Your task to perform on an android device: allow cookies in the chrome app Image 0: 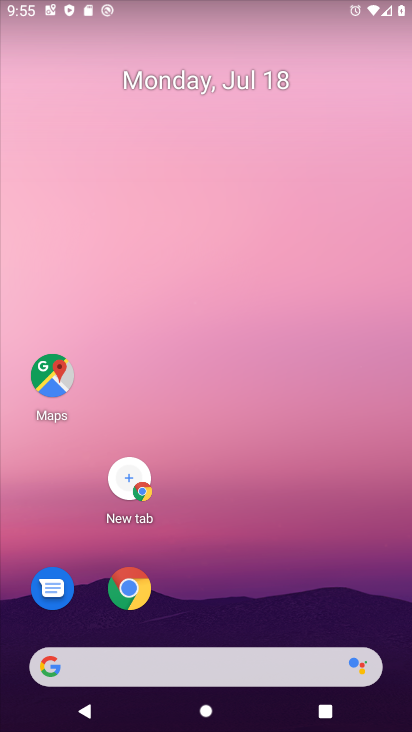
Step 0: click (131, 595)
Your task to perform on an android device: allow cookies in the chrome app Image 1: 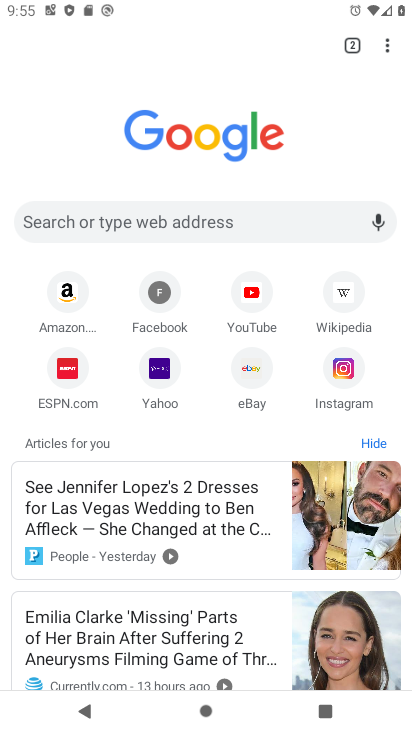
Step 1: click (392, 53)
Your task to perform on an android device: allow cookies in the chrome app Image 2: 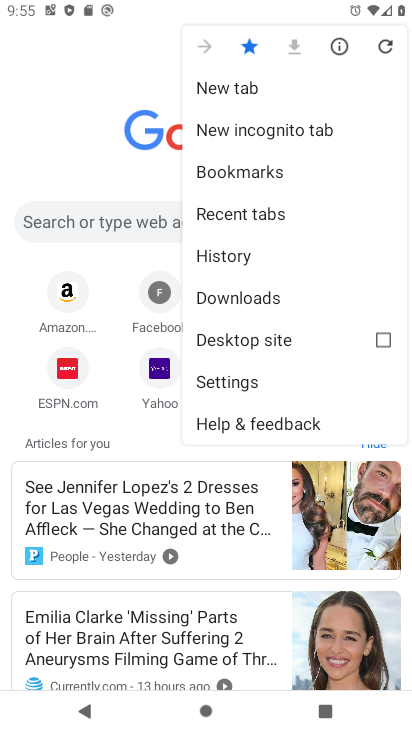
Step 2: click (290, 385)
Your task to perform on an android device: allow cookies in the chrome app Image 3: 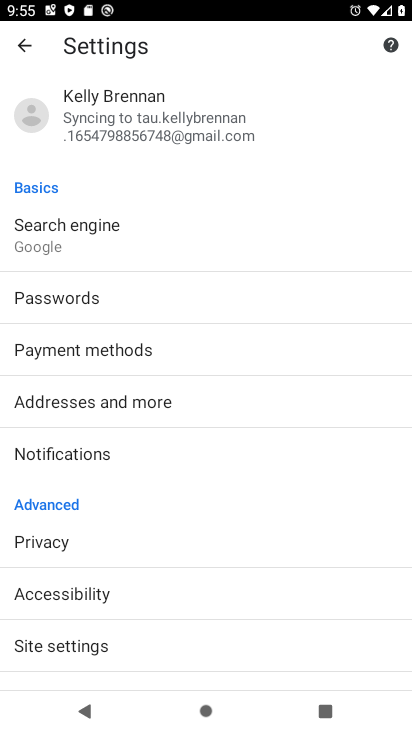
Step 3: drag from (98, 627) to (124, 259)
Your task to perform on an android device: allow cookies in the chrome app Image 4: 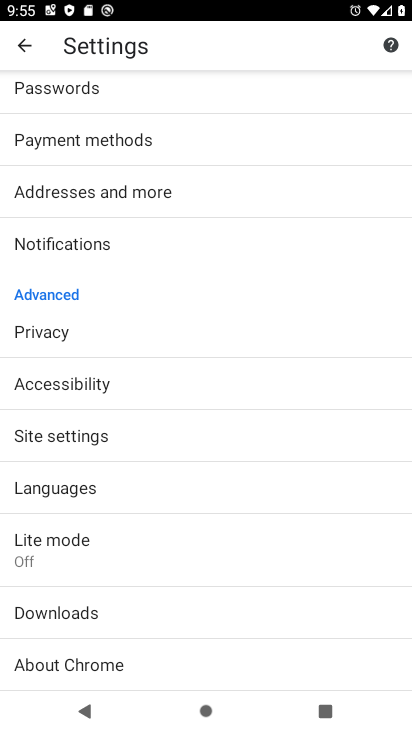
Step 4: click (151, 440)
Your task to perform on an android device: allow cookies in the chrome app Image 5: 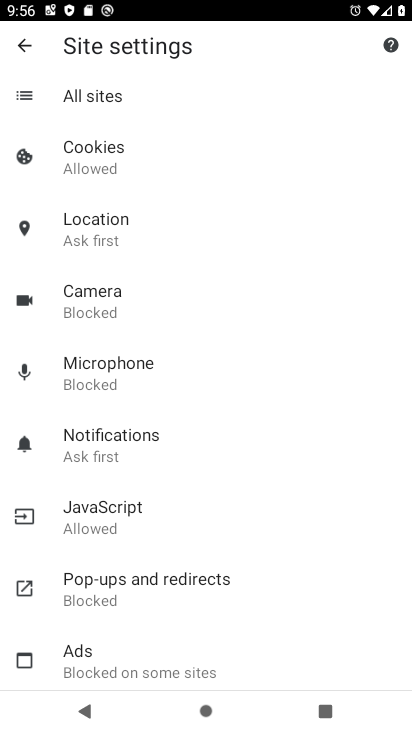
Step 5: click (162, 154)
Your task to perform on an android device: allow cookies in the chrome app Image 6: 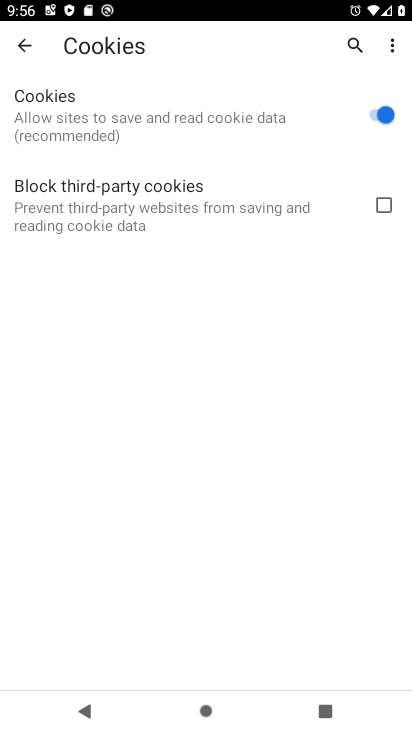
Step 6: task complete